Your task to perform on an android device: Show me recent news Image 0: 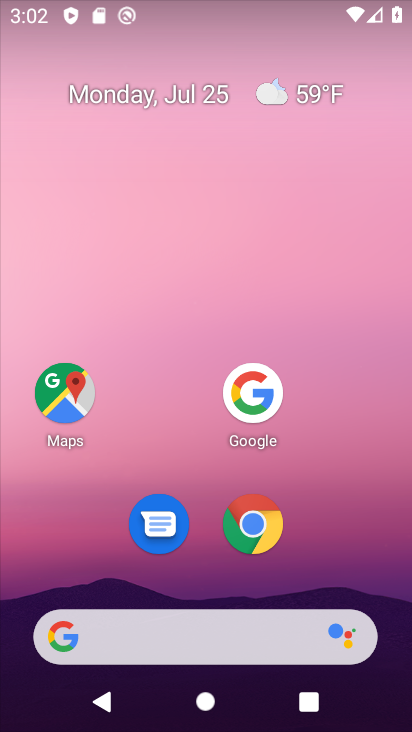
Step 0: press home button
Your task to perform on an android device: Show me recent news Image 1: 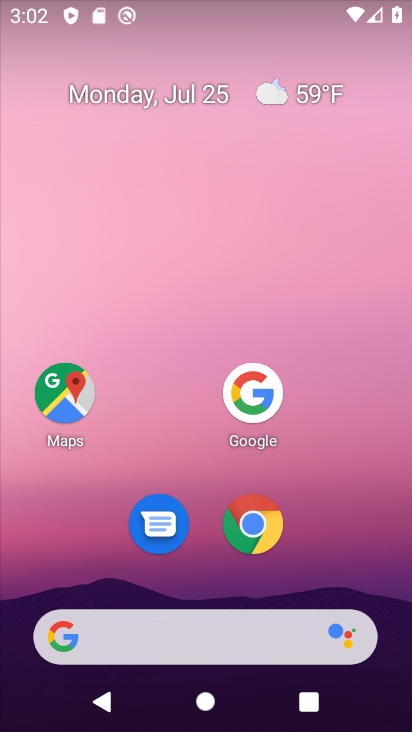
Step 1: click (138, 640)
Your task to perform on an android device: Show me recent news Image 2: 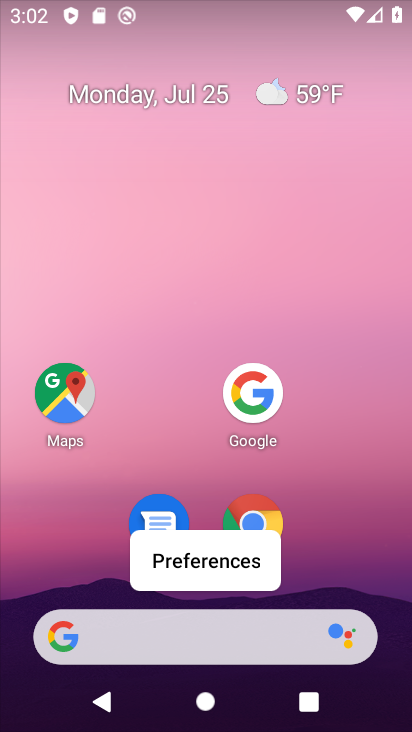
Step 2: click (146, 624)
Your task to perform on an android device: Show me recent news Image 3: 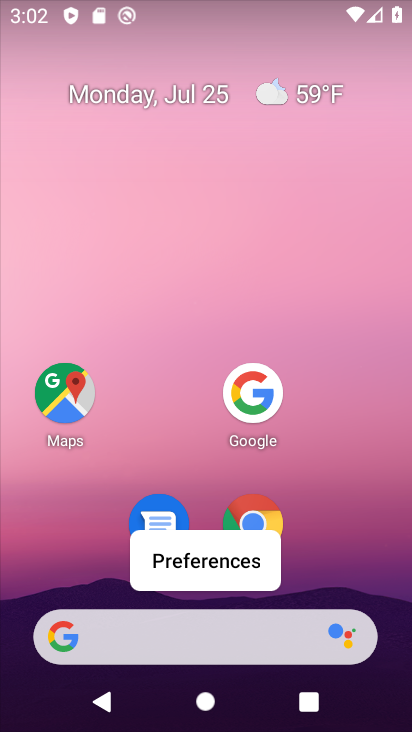
Step 3: click (139, 632)
Your task to perform on an android device: Show me recent news Image 4: 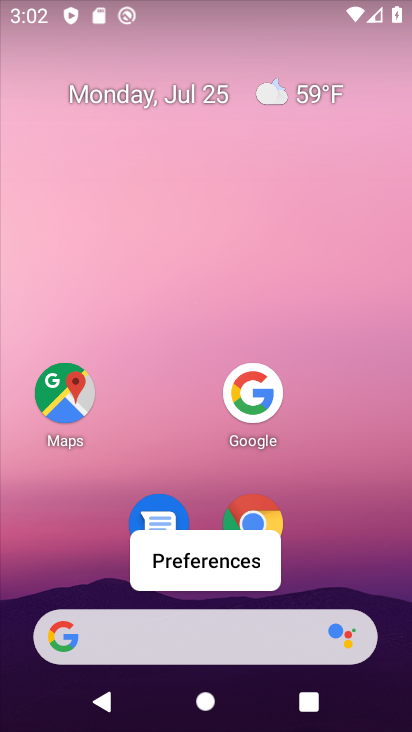
Step 4: click (125, 638)
Your task to perform on an android device: Show me recent news Image 5: 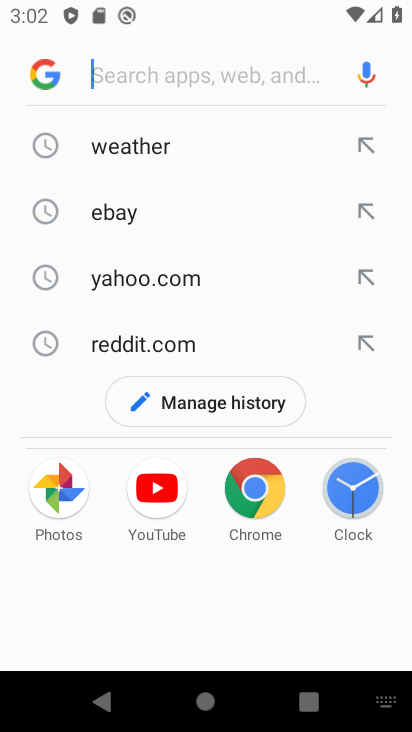
Step 5: type "recent news"
Your task to perform on an android device: Show me recent news Image 6: 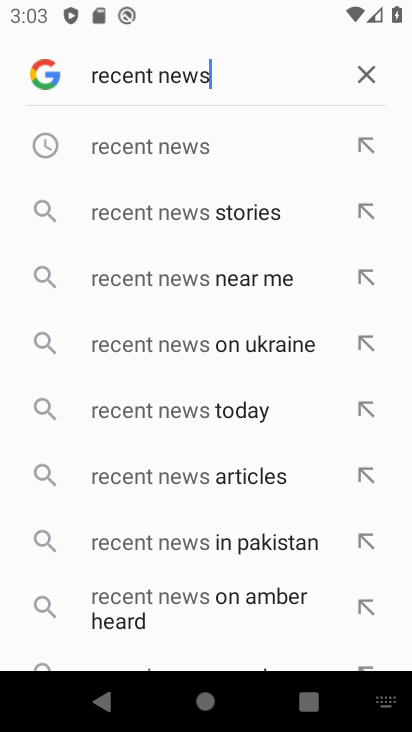
Step 6: click (148, 141)
Your task to perform on an android device: Show me recent news Image 7: 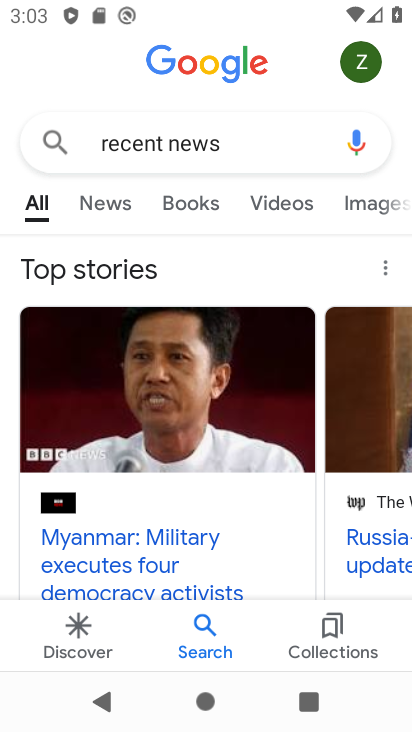
Step 7: click (115, 200)
Your task to perform on an android device: Show me recent news Image 8: 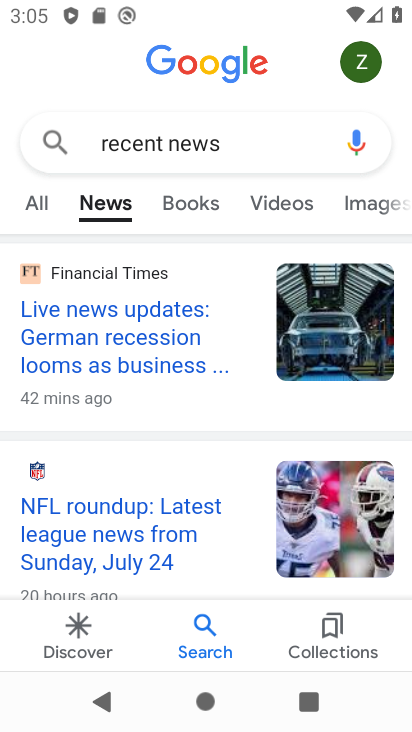
Step 8: task complete